Your task to perform on an android device: Do I have any events this weekend? Image 0: 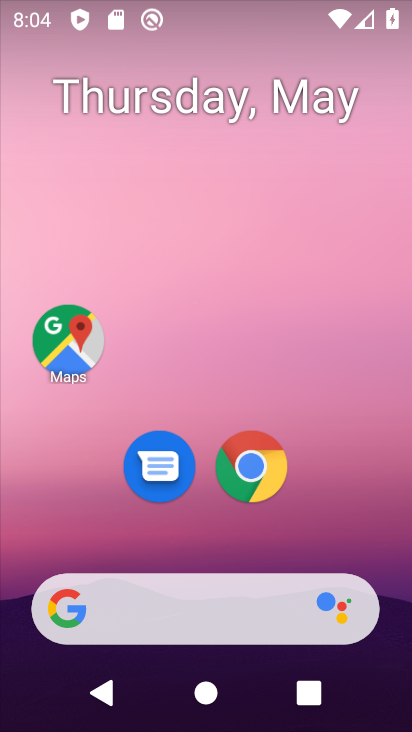
Step 0: click (122, 133)
Your task to perform on an android device: Do I have any events this weekend? Image 1: 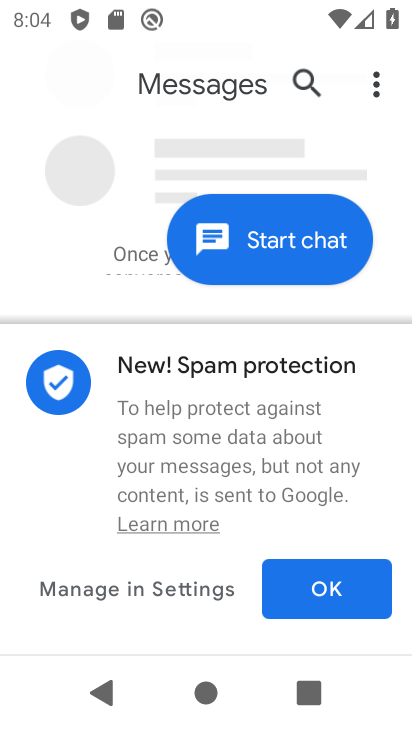
Step 1: press home button
Your task to perform on an android device: Do I have any events this weekend? Image 2: 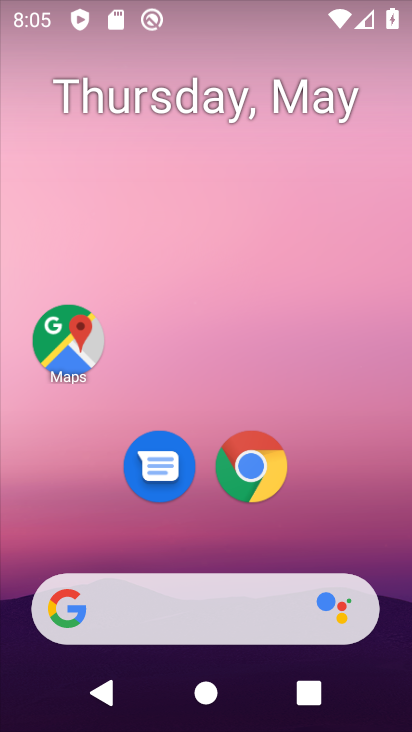
Step 2: drag from (199, 548) to (147, 52)
Your task to perform on an android device: Do I have any events this weekend? Image 3: 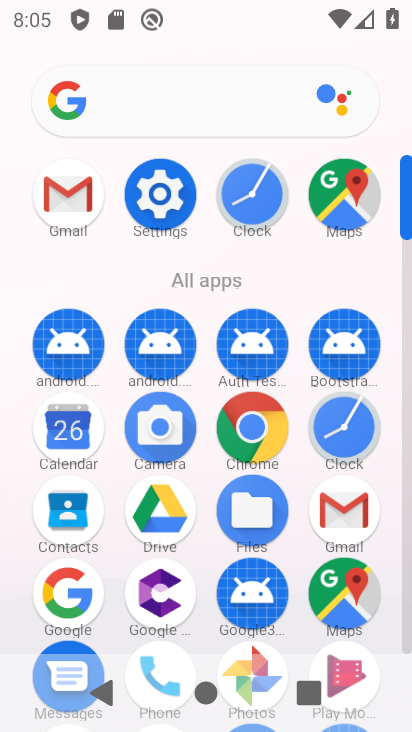
Step 3: click (65, 443)
Your task to perform on an android device: Do I have any events this weekend? Image 4: 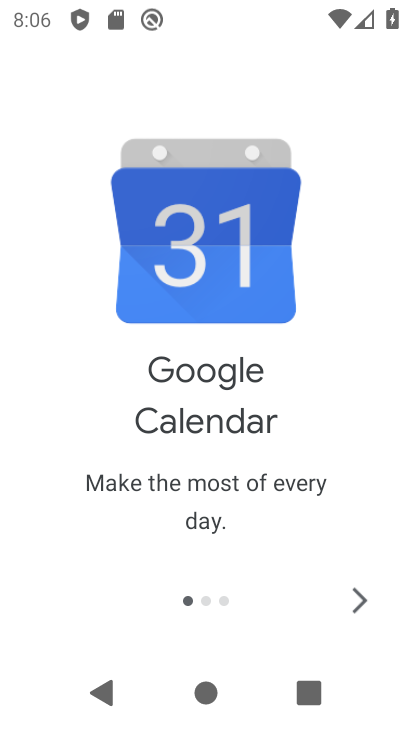
Step 4: click (355, 597)
Your task to perform on an android device: Do I have any events this weekend? Image 5: 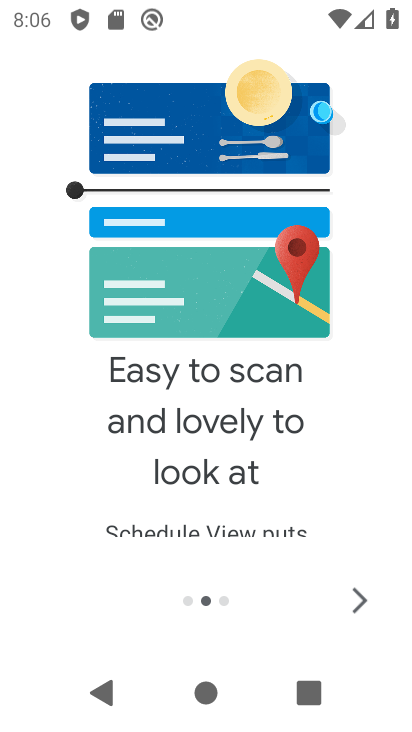
Step 5: click (368, 606)
Your task to perform on an android device: Do I have any events this weekend? Image 6: 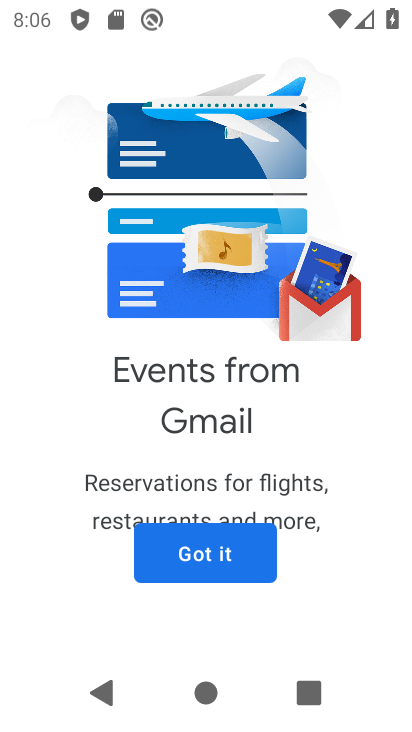
Step 6: click (213, 527)
Your task to perform on an android device: Do I have any events this weekend? Image 7: 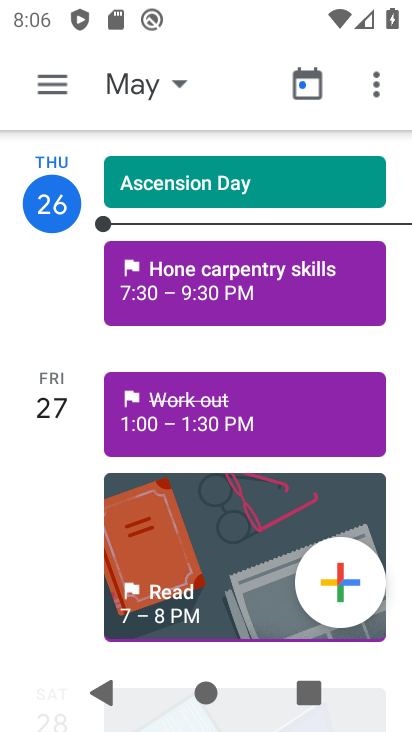
Step 7: click (40, 80)
Your task to perform on an android device: Do I have any events this weekend? Image 8: 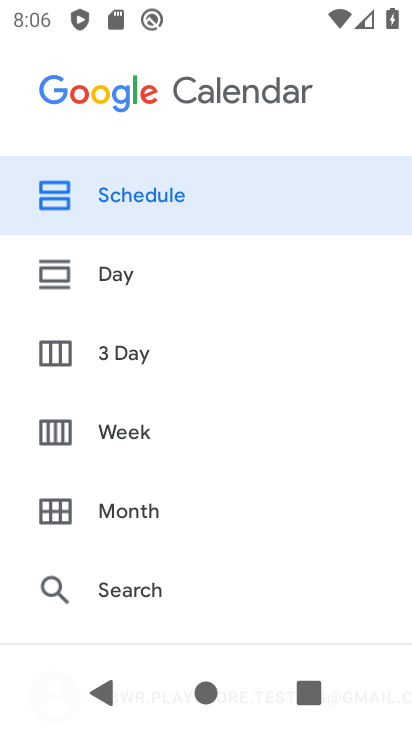
Step 8: click (121, 421)
Your task to perform on an android device: Do I have any events this weekend? Image 9: 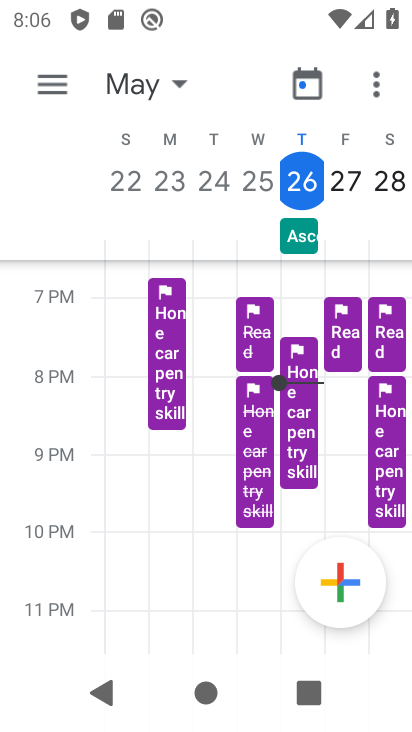
Step 9: click (300, 234)
Your task to perform on an android device: Do I have any events this weekend? Image 10: 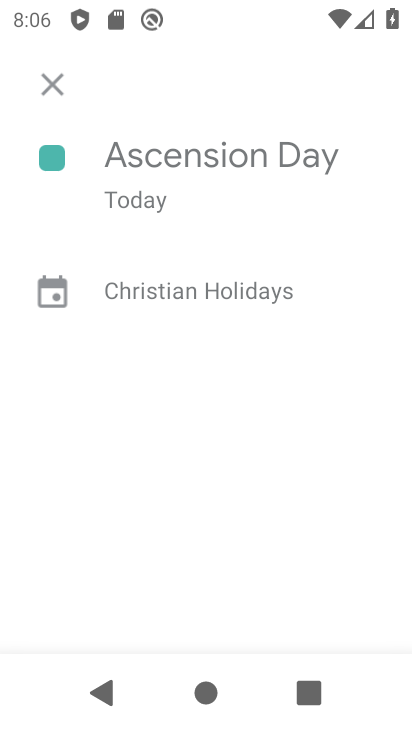
Step 10: task complete